Your task to perform on an android device: change the clock display to digital Image 0: 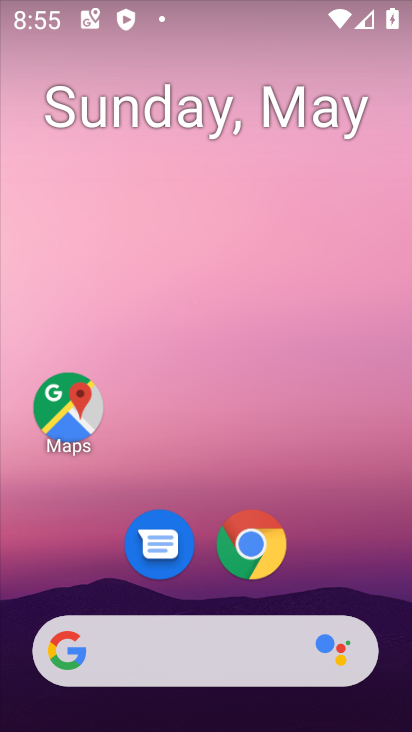
Step 0: drag from (331, 571) to (394, 0)
Your task to perform on an android device: change the clock display to digital Image 1: 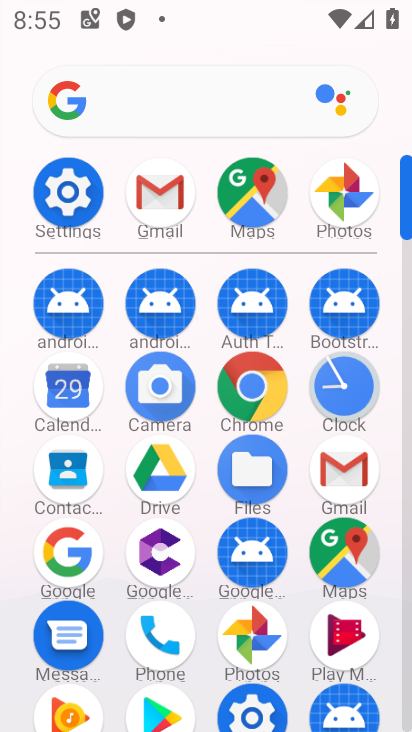
Step 1: click (331, 374)
Your task to perform on an android device: change the clock display to digital Image 2: 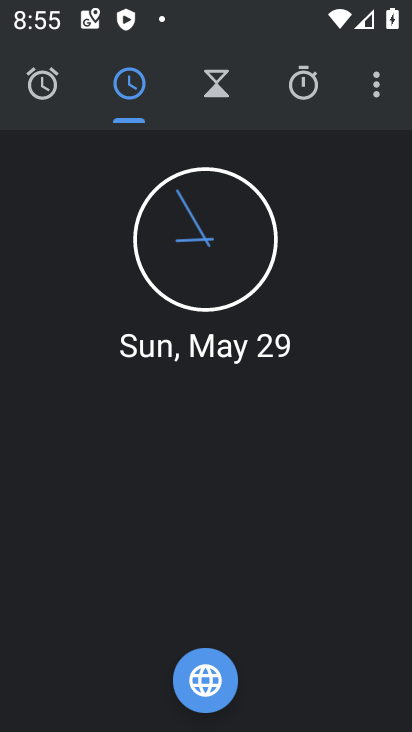
Step 2: click (339, 107)
Your task to perform on an android device: change the clock display to digital Image 3: 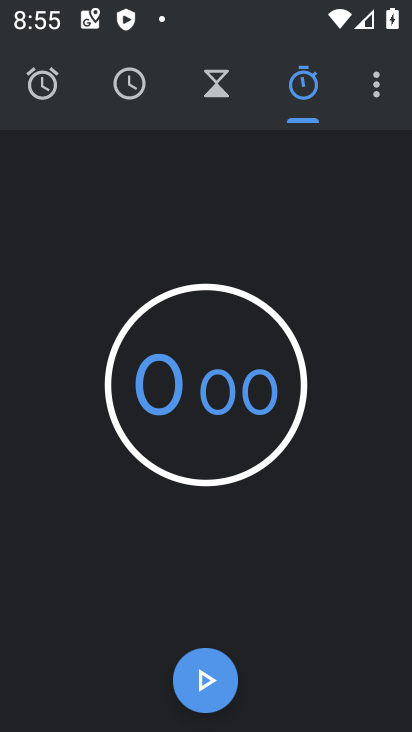
Step 3: click (377, 72)
Your task to perform on an android device: change the clock display to digital Image 4: 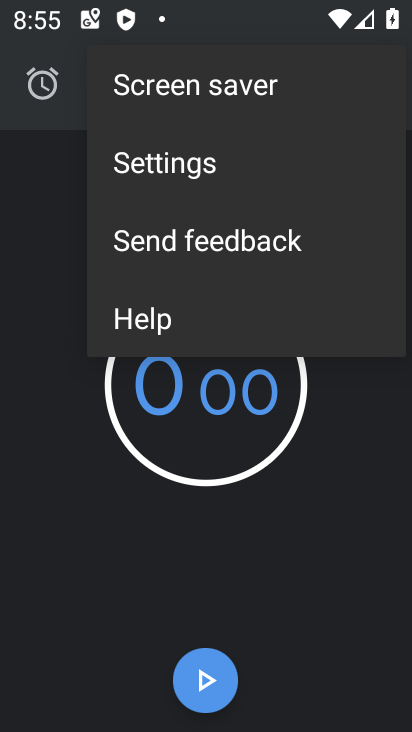
Step 4: click (184, 178)
Your task to perform on an android device: change the clock display to digital Image 5: 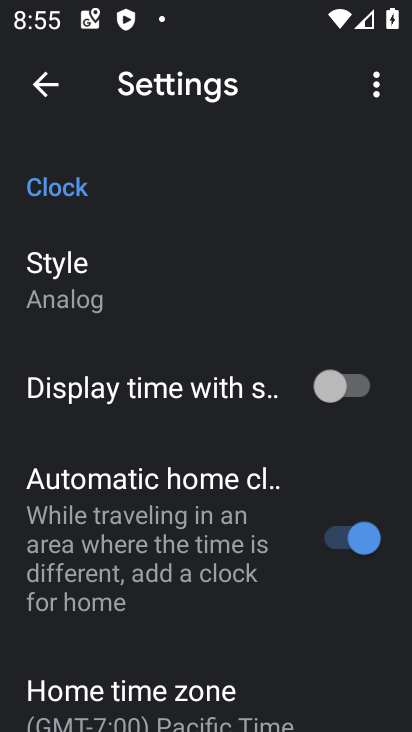
Step 5: click (78, 277)
Your task to perform on an android device: change the clock display to digital Image 6: 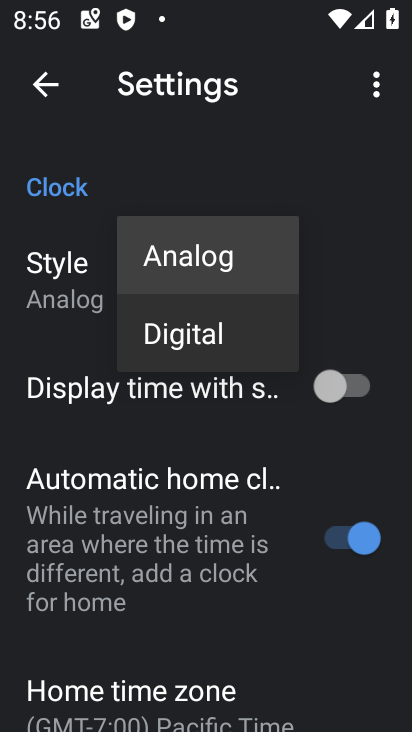
Step 6: click (156, 324)
Your task to perform on an android device: change the clock display to digital Image 7: 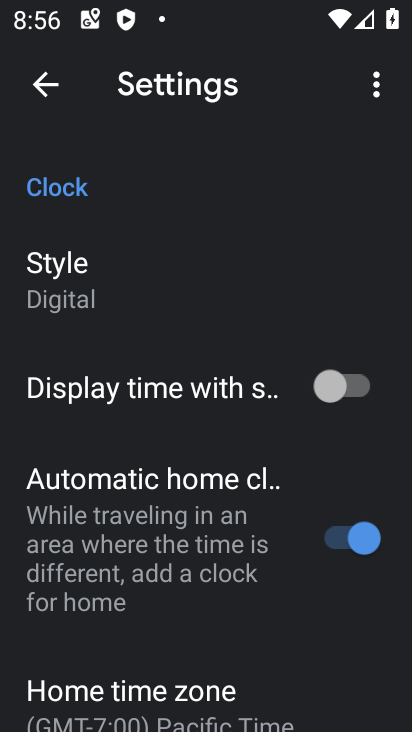
Step 7: task complete